Your task to perform on an android device: Open Google Maps Image 0: 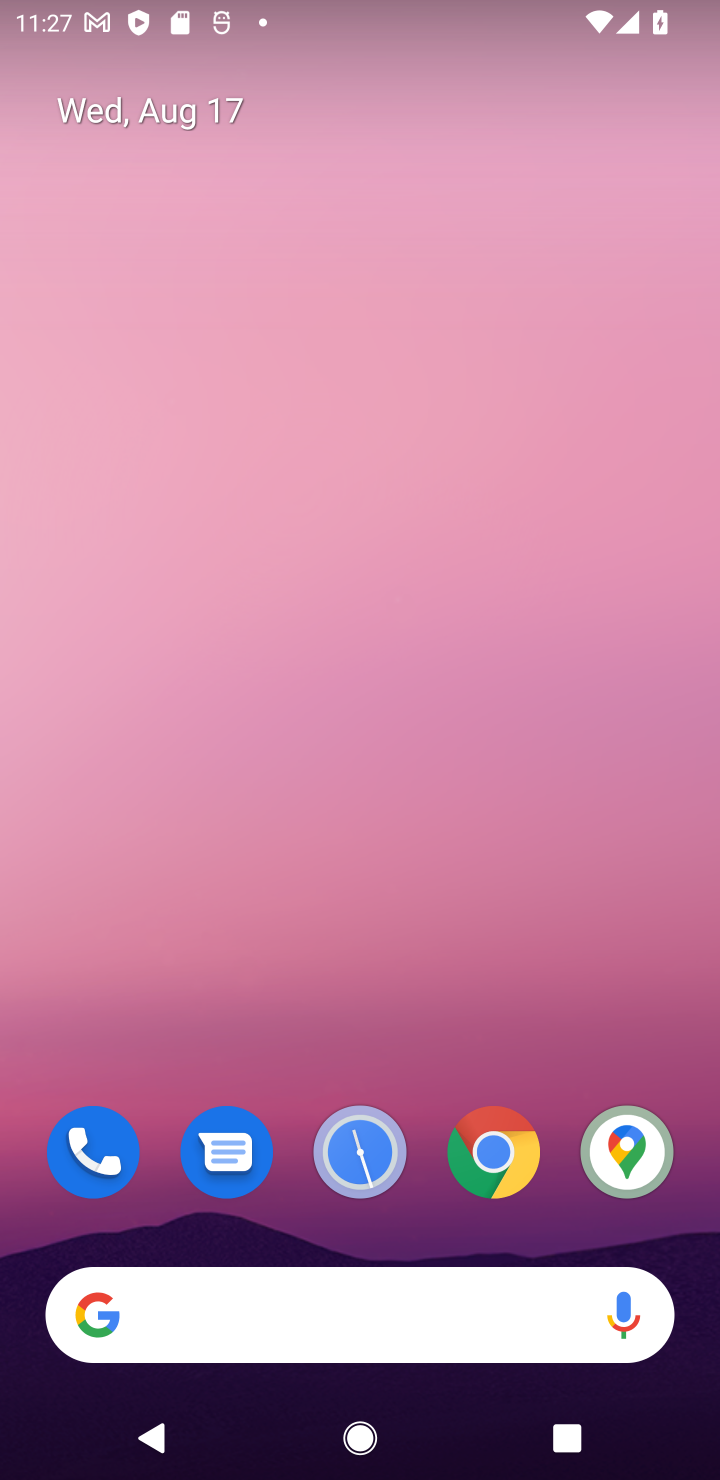
Step 0: drag from (564, 1239) to (285, 105)
Your task to perform on an android device: Open Google Maps Image 1: 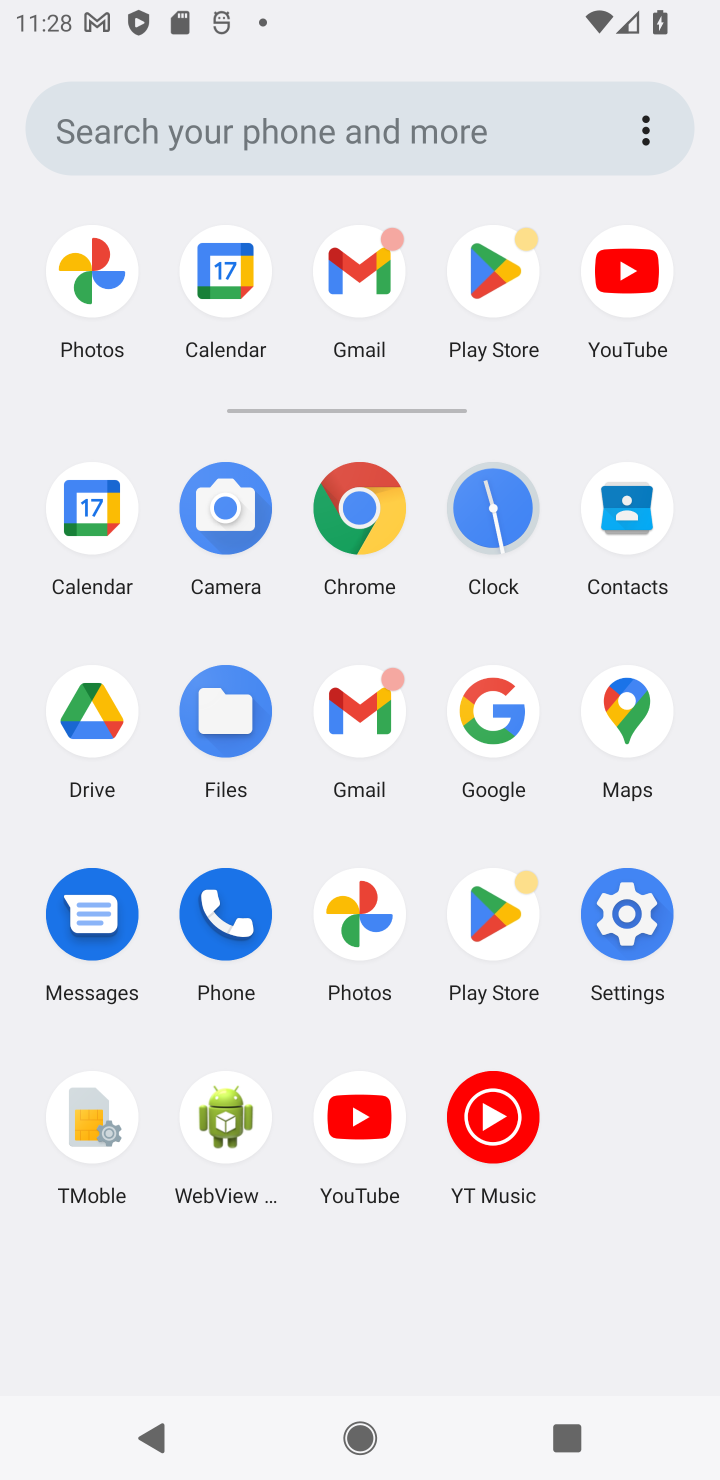
Step 1: click (624, 722)
Your task to perform on an android device: Open Google Maps Image 2: 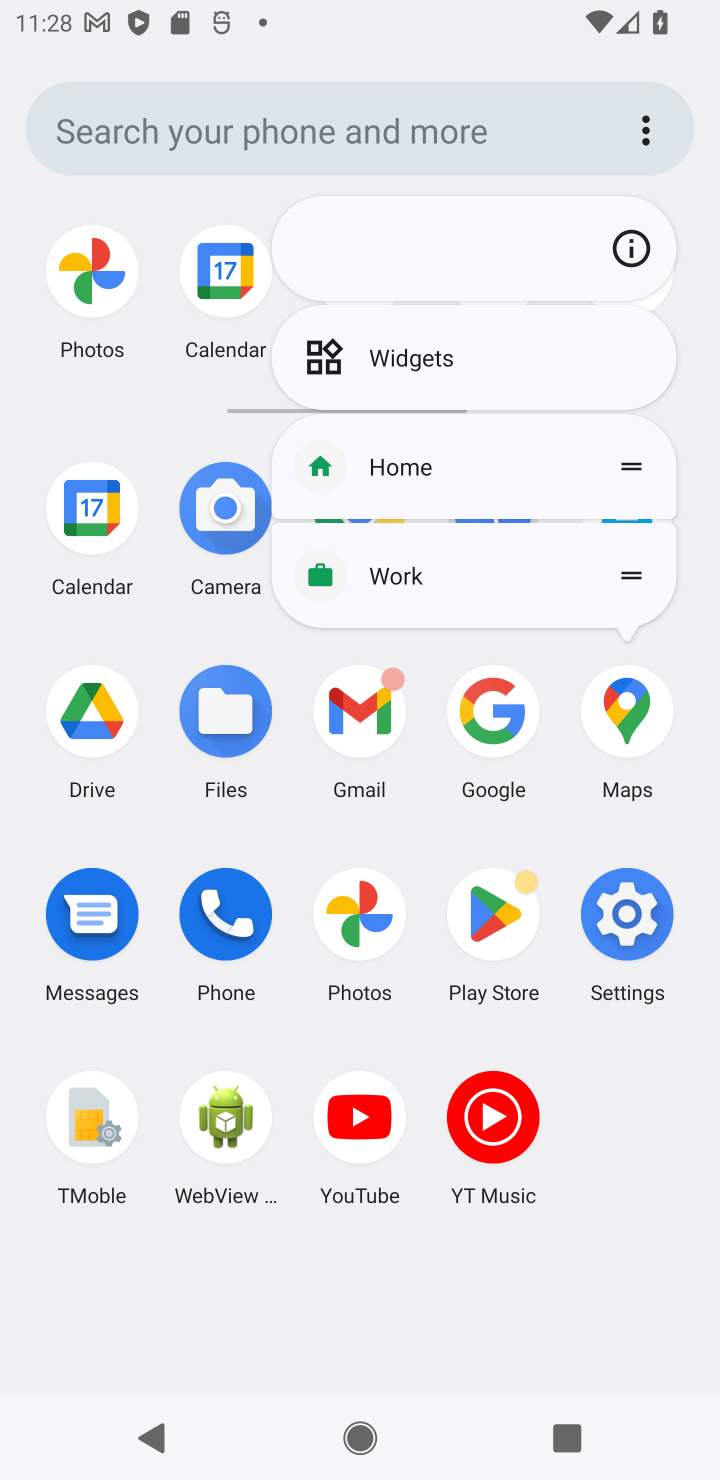
Step 2: click (624, 722)
Your task to perform on an android device: Open Google Maps Image 3: 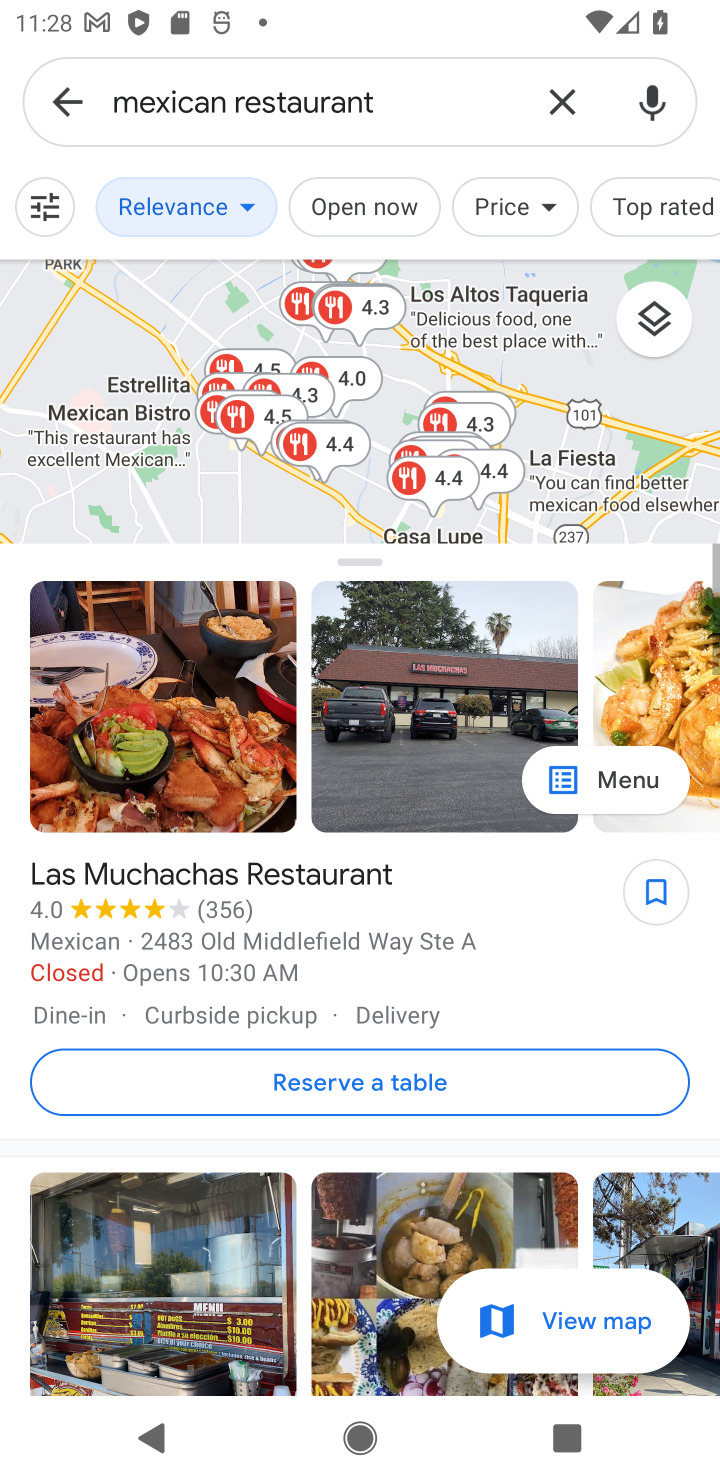
Step 3: click (558, 92)
Your task to perform on an android device: Open Google Maps Image 4: 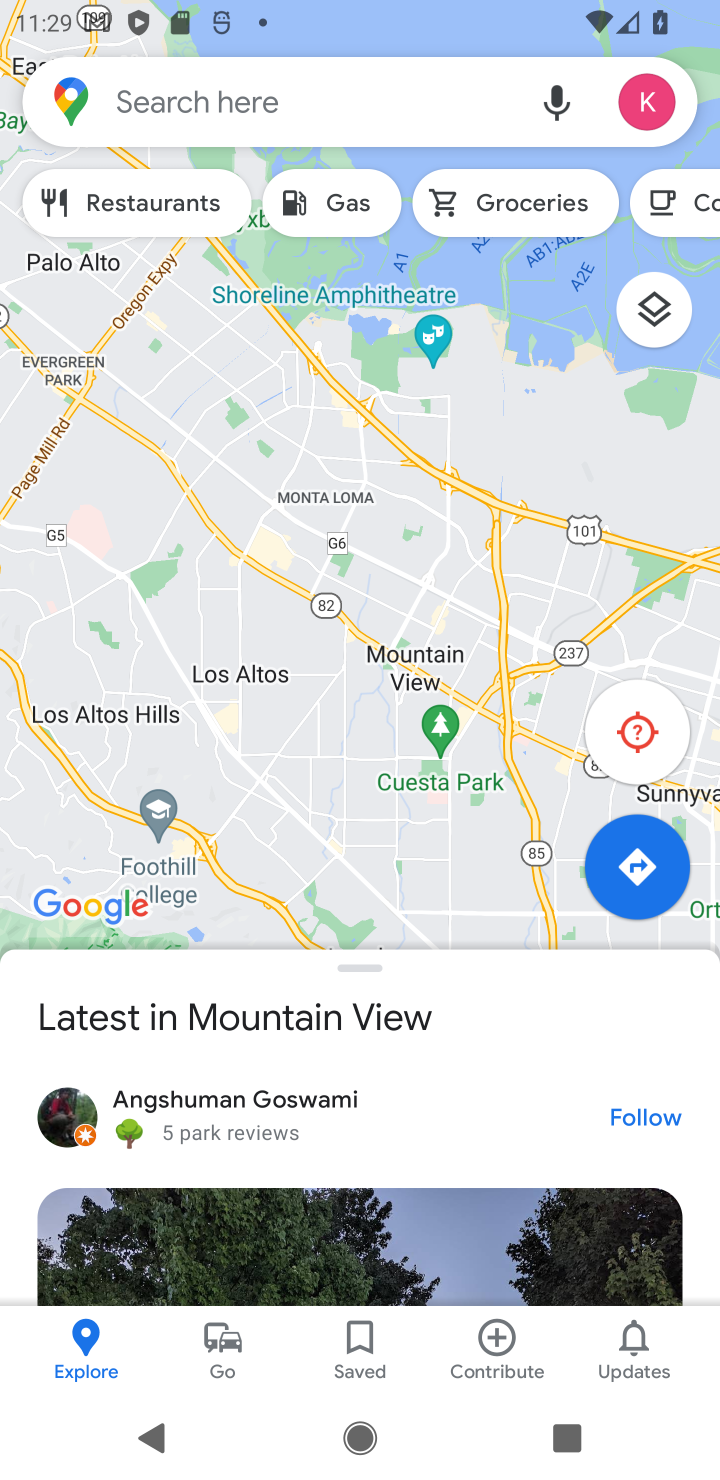
Step 4: task complete